Your task to perform on an android device: Open notification settings Image 0: 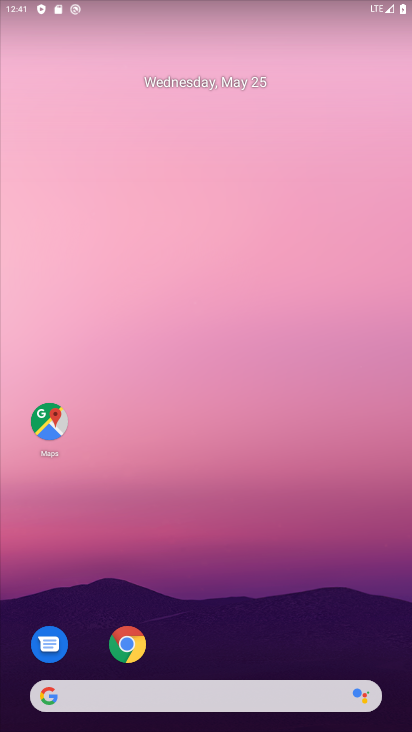
Step 0: drag from (237, 531) to (166, 108)
Your task to perform on an android device: Open notification settings Image 1: 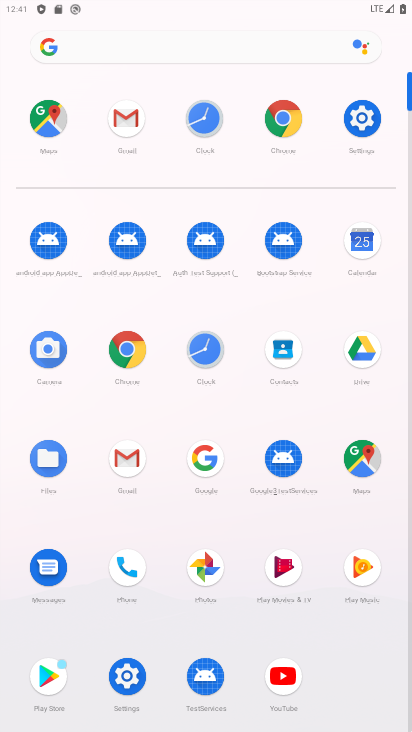
Step 1: click (363, 112)
Your task to perform on an android device: Open notification settings Image 2: 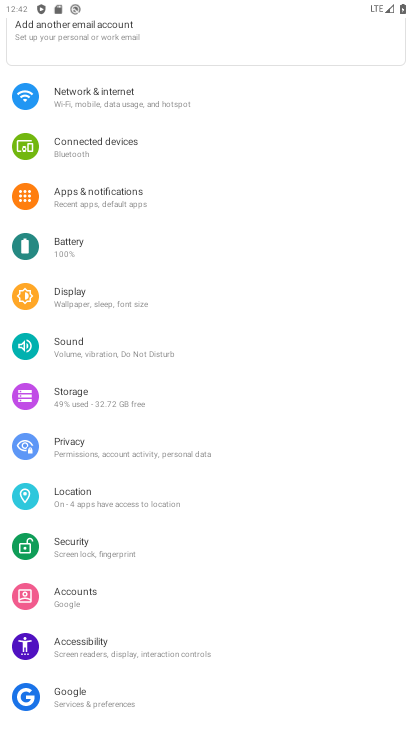
Step 2: click (111, 182)
Your task to perform on an android device: Open notification settings Image 3: 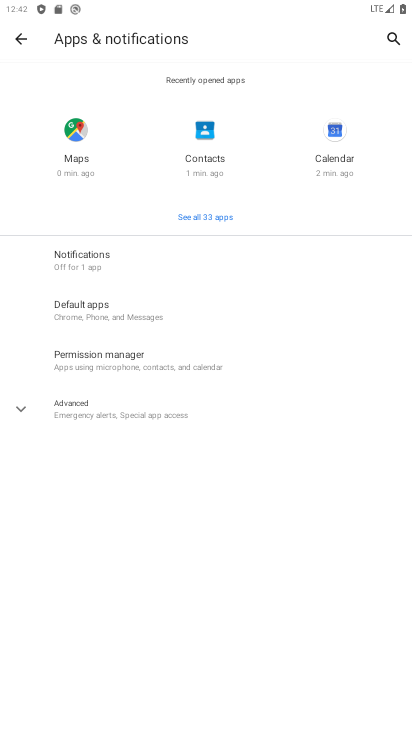
Step 3: task complete